Your task to perform on an android device: Open accessibility settings Image 0: 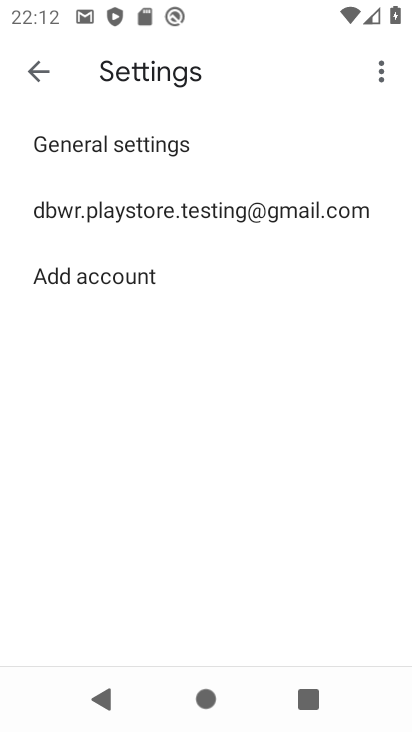
Step 0: press home button
Your task to perform on an android device: Open accessibility settings Image 1: 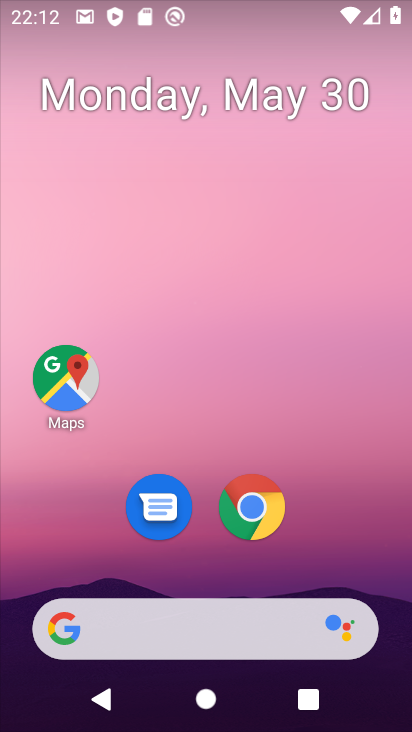
Step 1: drag from (380, 535) to (377, 118)
Your task to perform on an android device: Open accessibility settings Image 2: 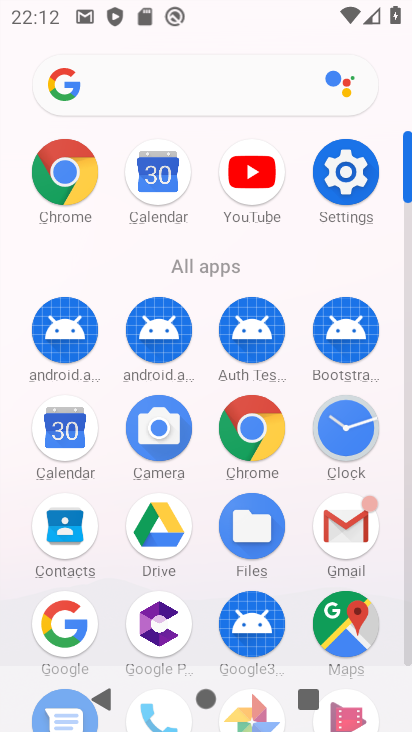
Step 2: click (355, 165)
Your task to perform on an android device: Open accessibility settings Image 3: 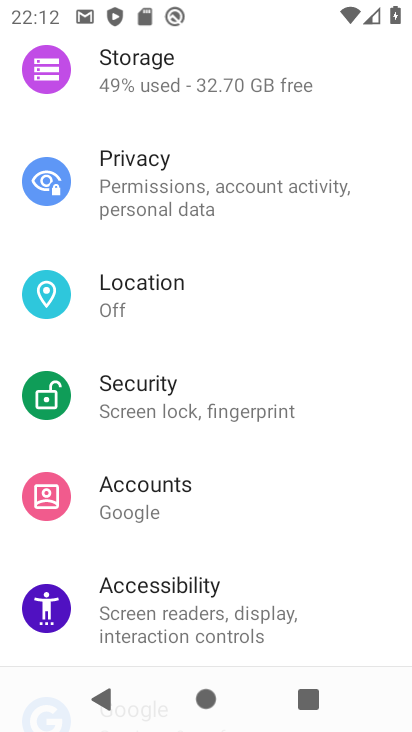
Step 3: drag from (352, 236) to (349, 387)
Your task to perform on an android device: Open accessibility settings Image 4: 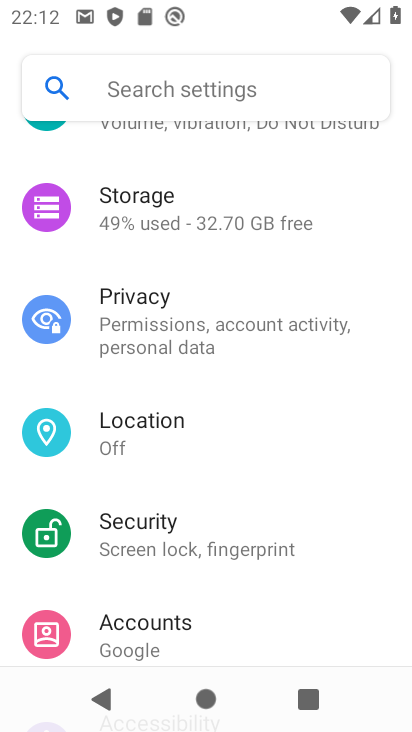
Step 4: drag from (358, 177) to (369, 401)
Your task to perform on an android device: Open accessibility settings Image 5: 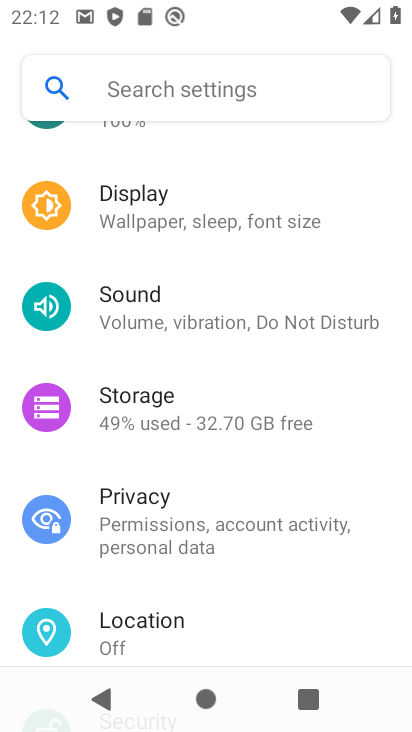
Step 5: drag from (372, 170) to (360, 350)
Your task to perform on an android device: Open accessibility settings Image 6: 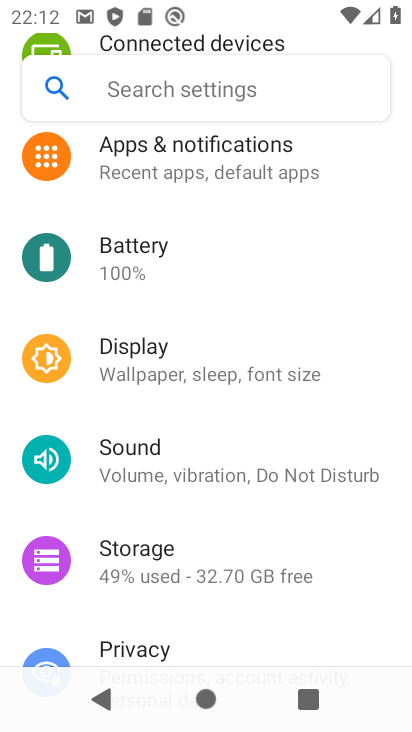
Step 6: drag from (349, 147) to (361, 307)
Your task to perform on an android device: Open accessibility settings Image 7: 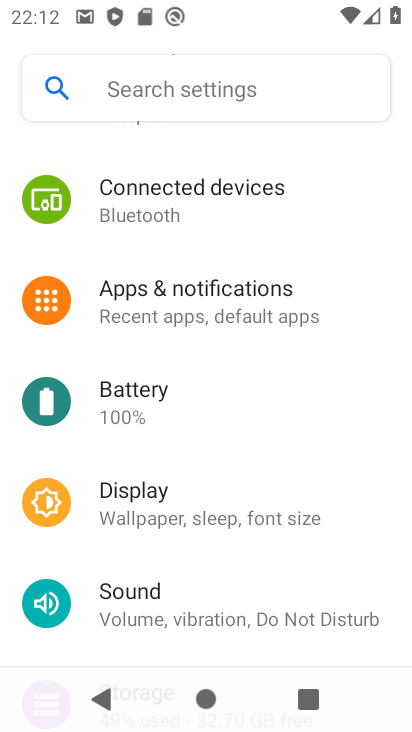
Step 7: drag from (365, 147) to (365, 298)
Your task to perform on an android device: Open accessibility settings Image 8: 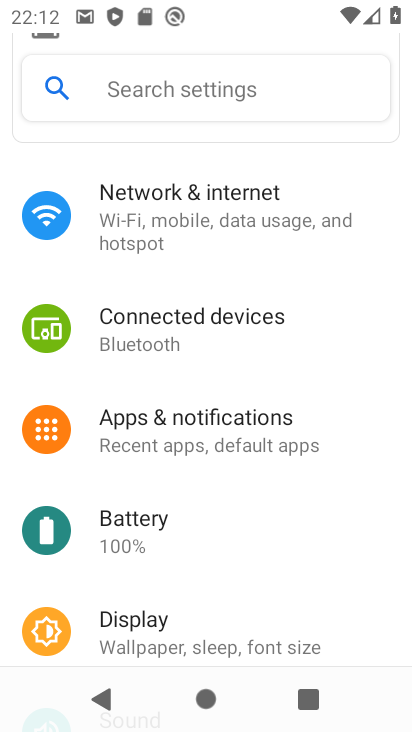
Step 8: drag from (369, 149) to (378, 308)
Your task to perform on an android device: Open accessibility settings Image 9: 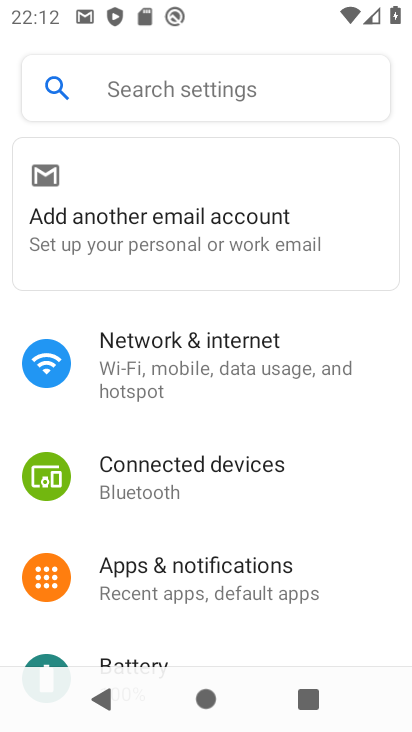
Step 9: drag from (358, 386) to (369, 184)
Your task to perform on an android device: Open accessibility settings Image 10: 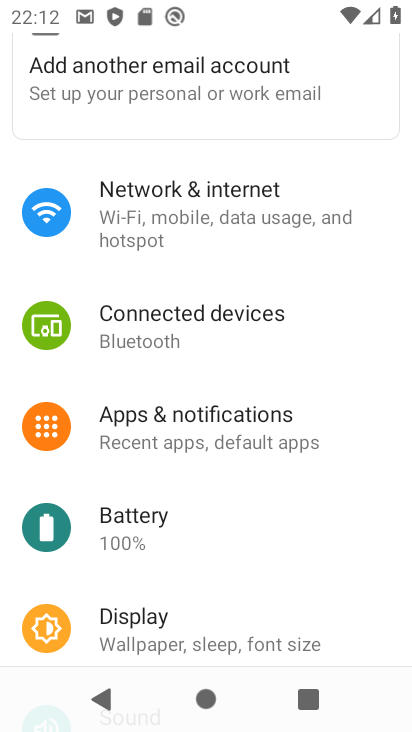
Step 10: drag from (350, 395) to (354, 206)
Your task to perform on an android device: Open accessibility settings Image 11: 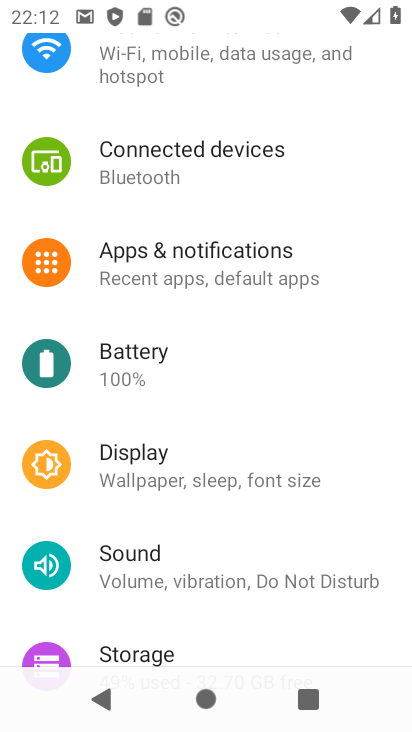
Step 11: drag from (354, 408) to (344, 269)
Your task to perform on an android device: Open accessibility settings Image 12: 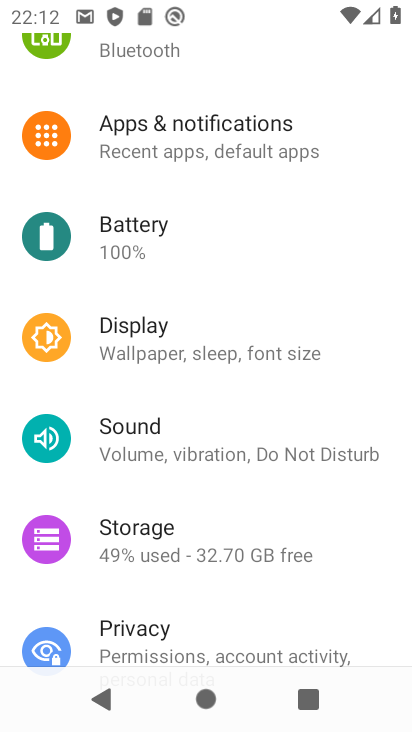
Step 12: drag from (354, 409) to (351, 293)
Your task to perform on an android device: Open accessibility settings Image 13: 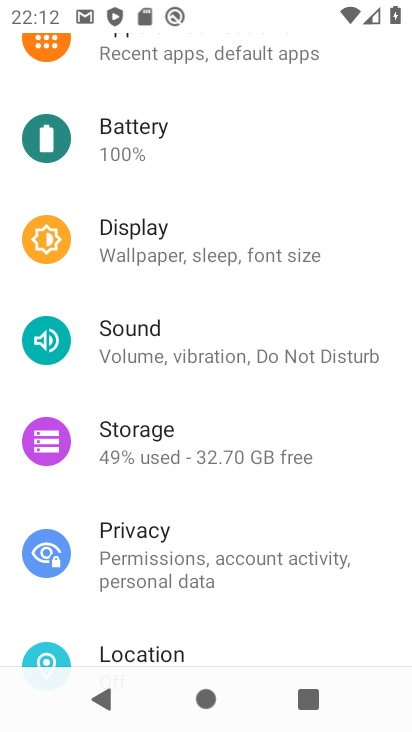
Step 13: drag from (361, 461) to (363, 332)
Your task to perform on an android device: Open accessibility settings Image 14: 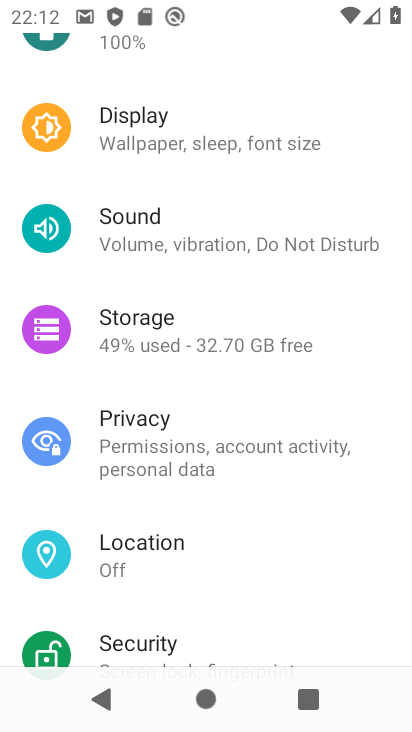
Step 14: drag from (371, 521) to (366, 386)
Your task to perform on an android device: Open accessibility settings Image 15: 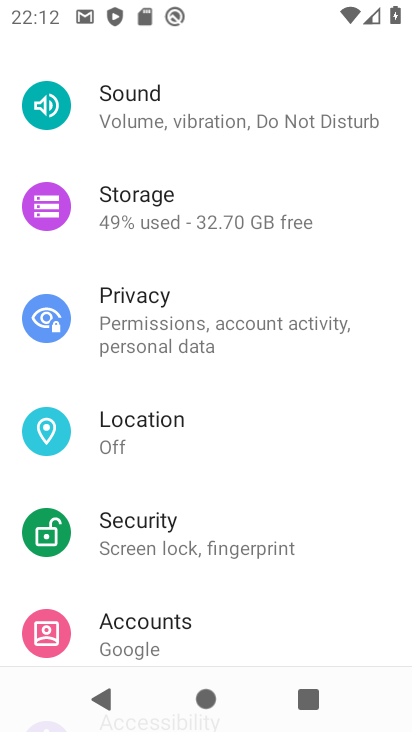
Step 15: drag from (360, 538) to (356, 394)
Your task to perform on an android device: Open accessibility settings Image 16: 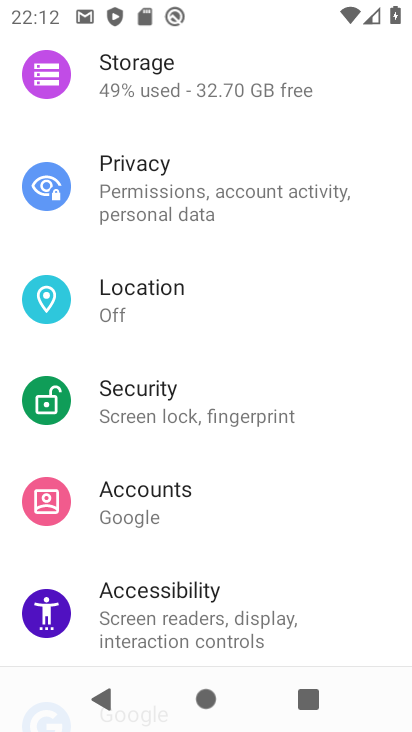
Step 16: drag from (342, 560) to (337, 425)
Your task to perform on an android device: Open accessibility settings Image 17: 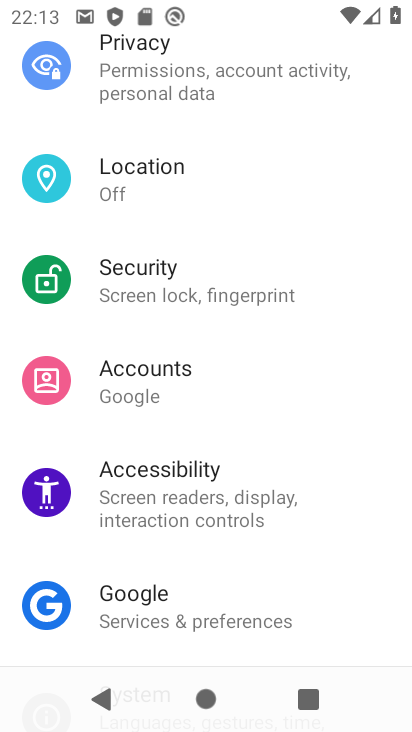
Step 17: drag from (340, 578) to (333, 404)
Your task to perform on an android device: Open accessibility settings Image 18: 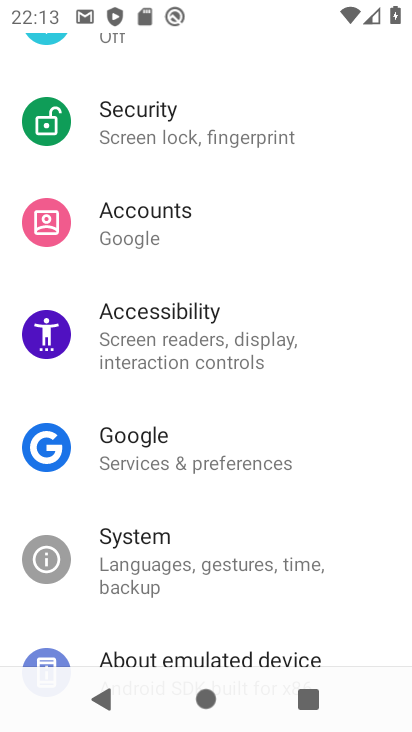
Step 18: drag from (328, 601) to (326, 436)
Your task to perform on an android device: Open accessibility settings Image 19: 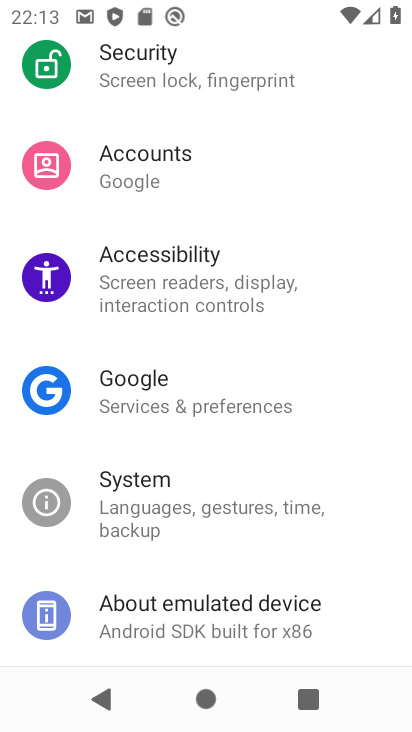
Step 19: drag from (316, 313) to (338, 437)
Your task to perform on an android device: Open accessibility settings Image 20: 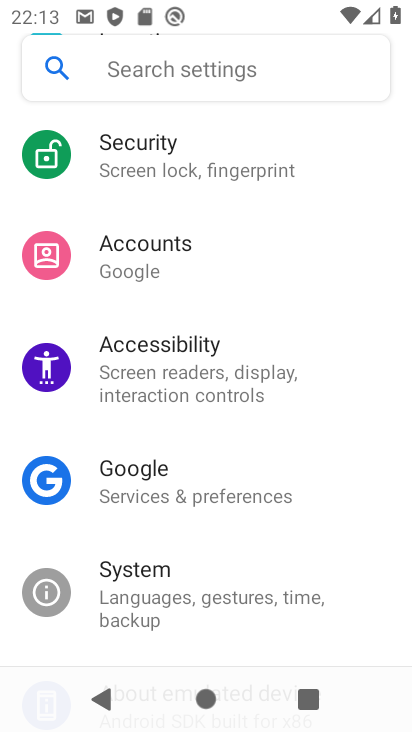
Step 20: click (256, 376)
Your task to perform on an android device: Open accessibility settings Image 21: 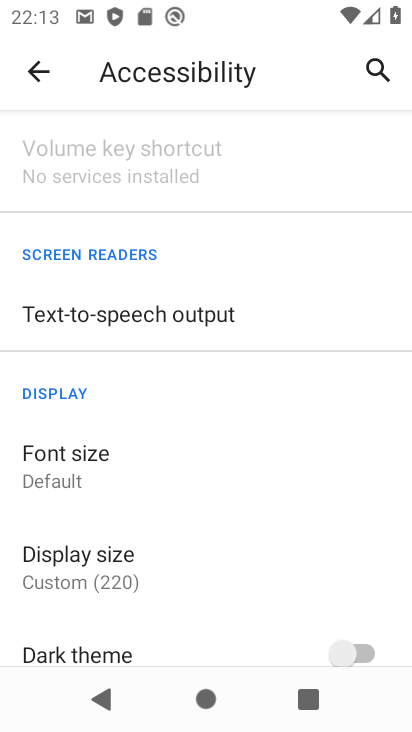
Step 21: task complete